Your task to perform on an android device: open app "Google Find My Device" Image 0: 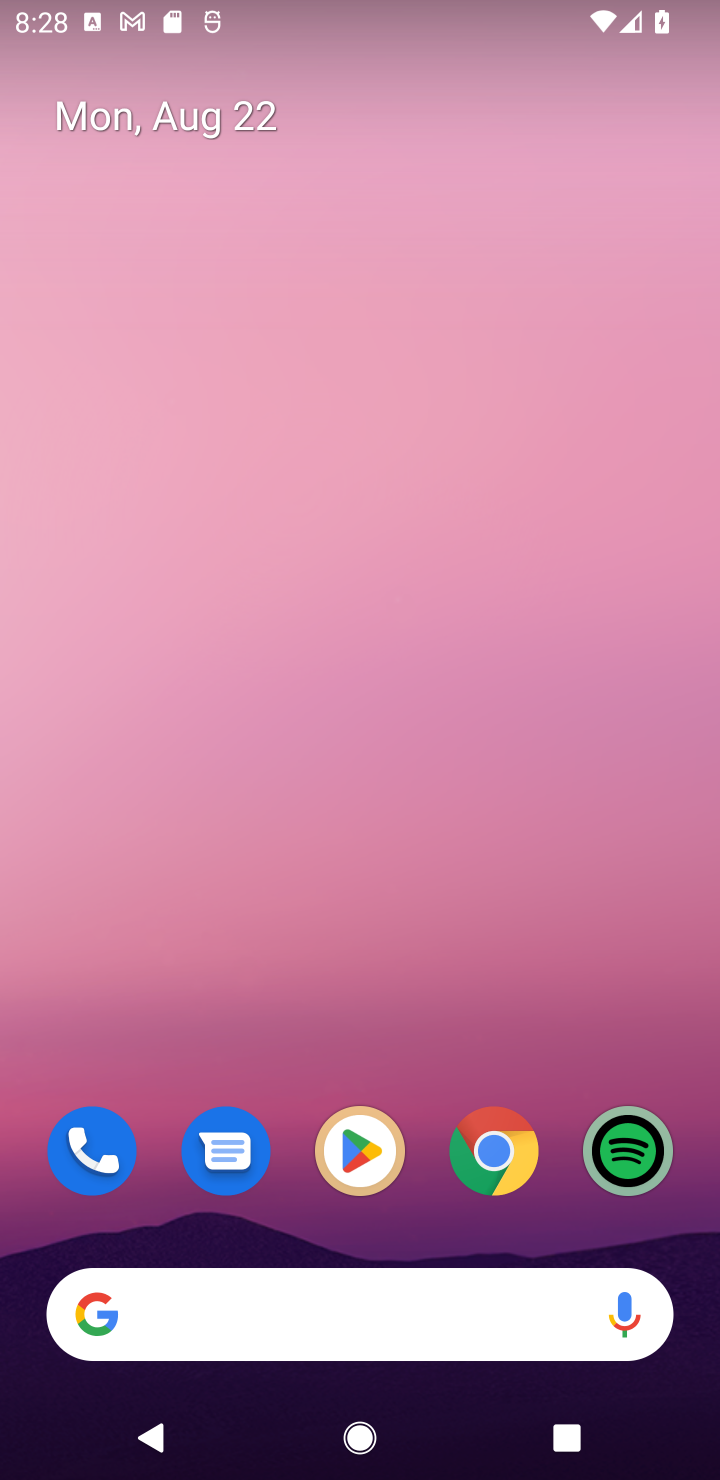
Step 0: click (350, 1150)
Your task to perform on an android device: open app "Google Find My Device" Image 1: 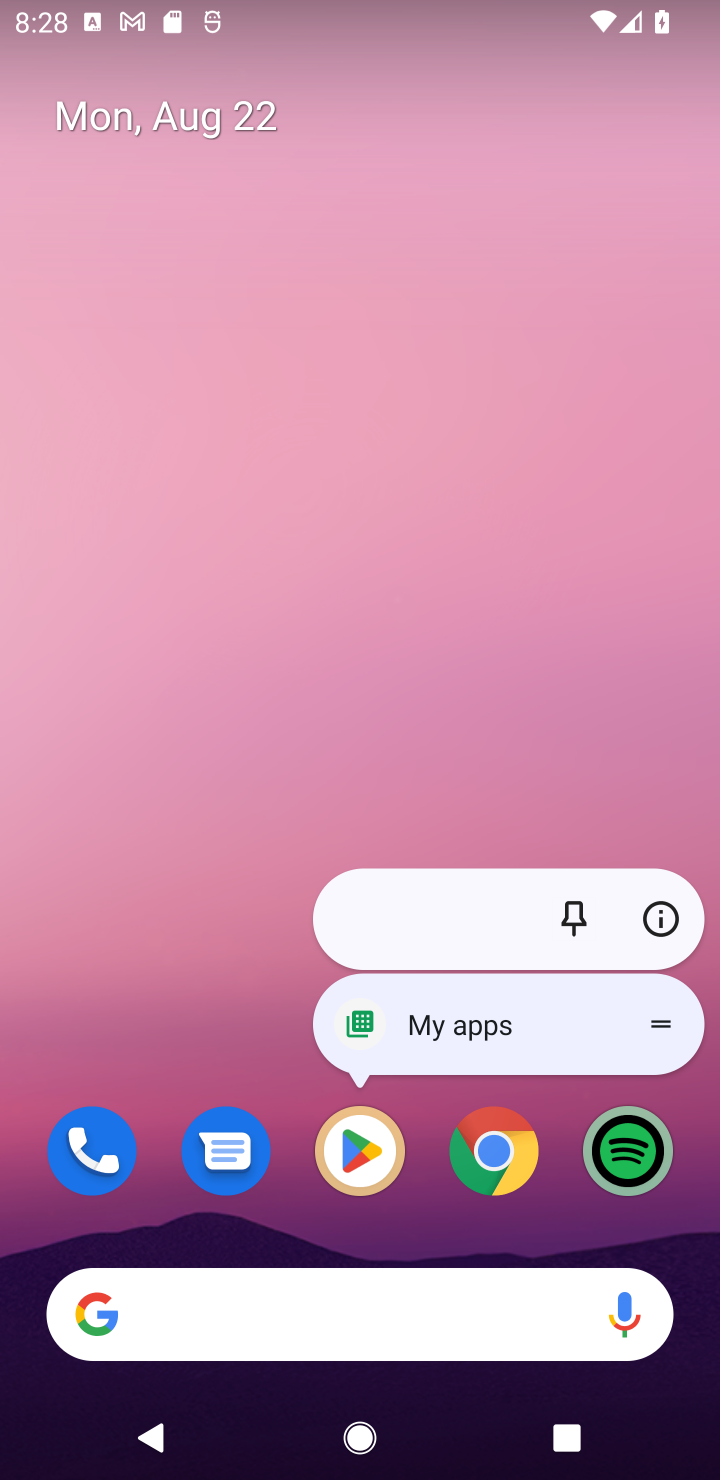
Step 1: click (350, 1154)
Your task to perform on an android device: open app "Google Find My Device" Image 2: 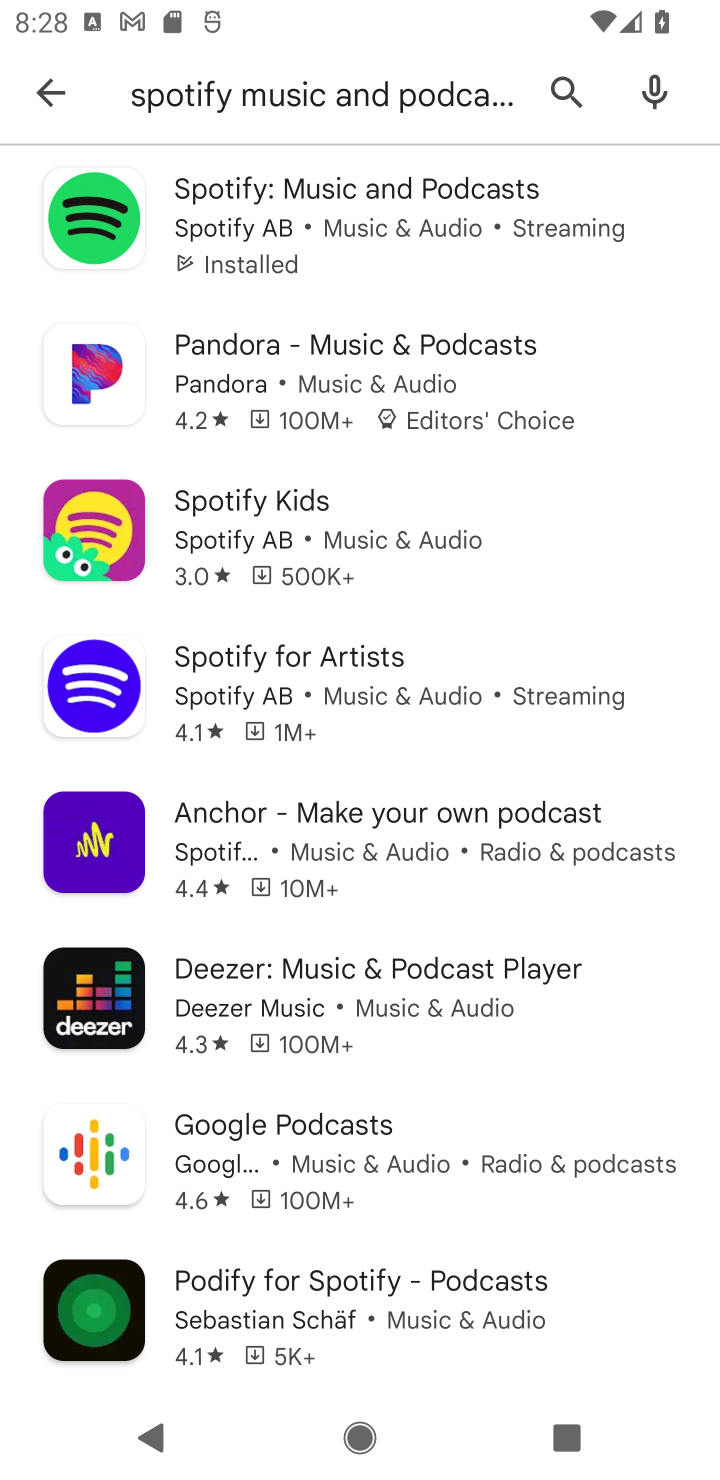
Step 2: click (559, 78)
Your task to perform on an android device: open app "Google Find My Device" Image 3: 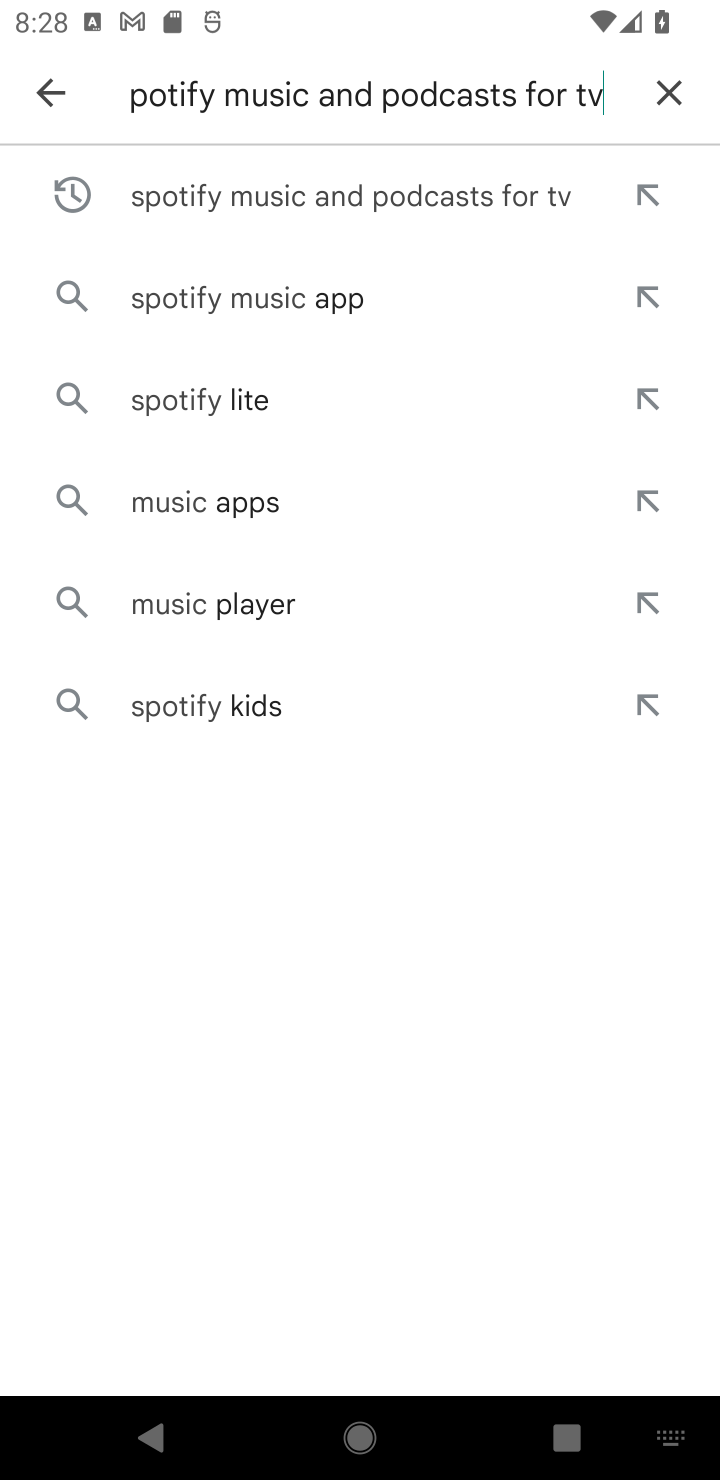
Step 3: click (662, 85)
Your task to perform on an android device: open app "Google Find My Device" Image 4: 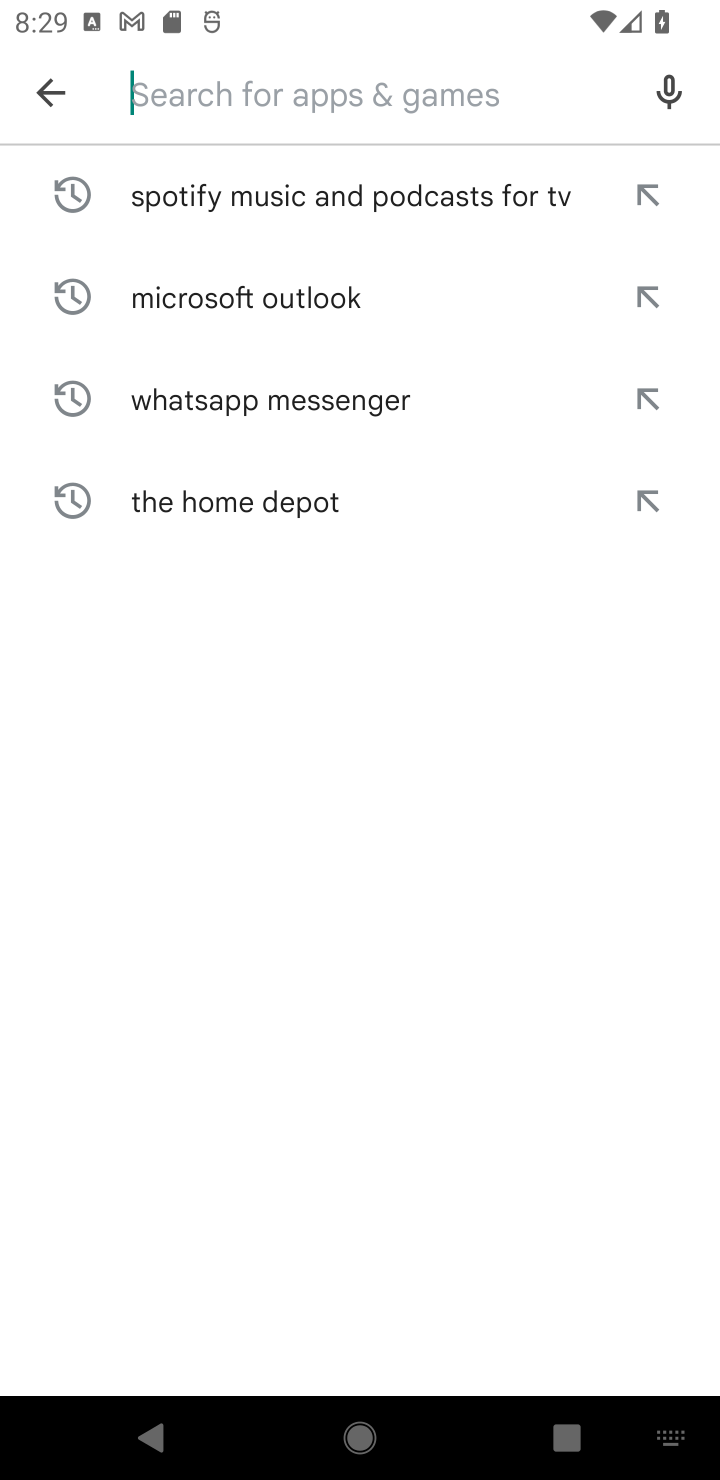
Step 4: type "Google Find My Device"
Your task to perform on an android device: open app "Google Find My Device" Image 5: 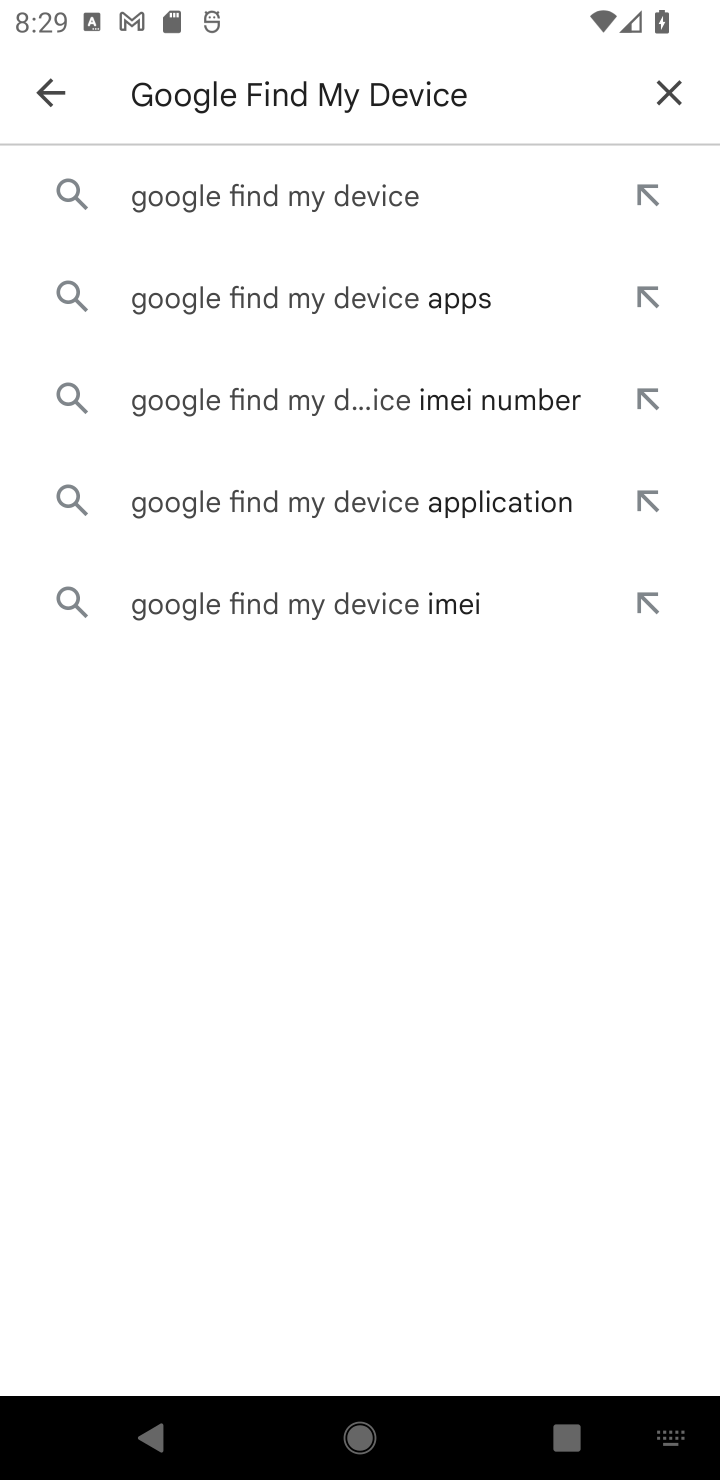
Step 5: click (303, 189)
Your task to perform on an android device: open app "Google Find My Device" Image 6: 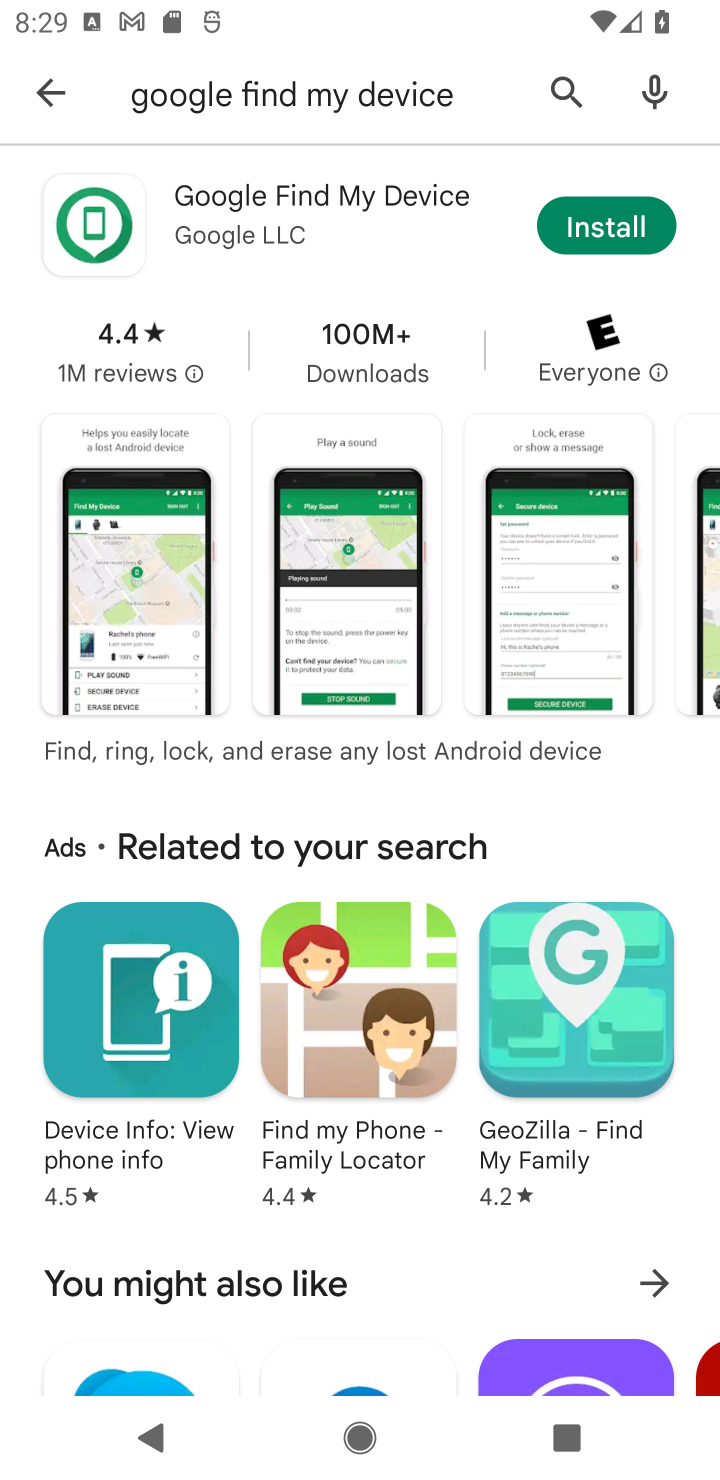
Step 6: task complete